Your task to perform on an android device: toggle show notifications on the lock screen Image 0: 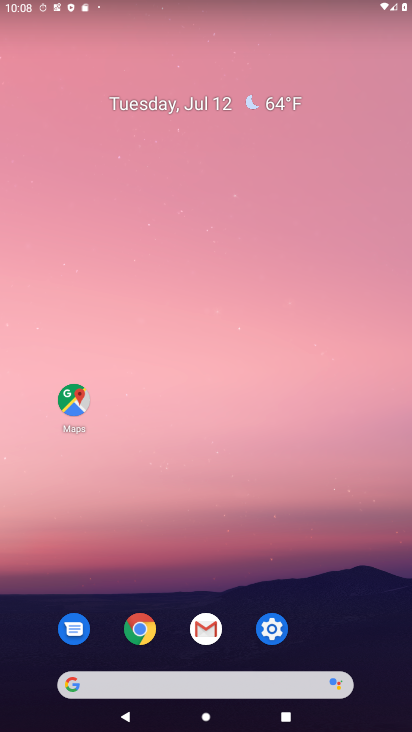
Step 0: click (265, 625)
Your task to perform on an android device: toggle show notifications on the lock screen Image 1: 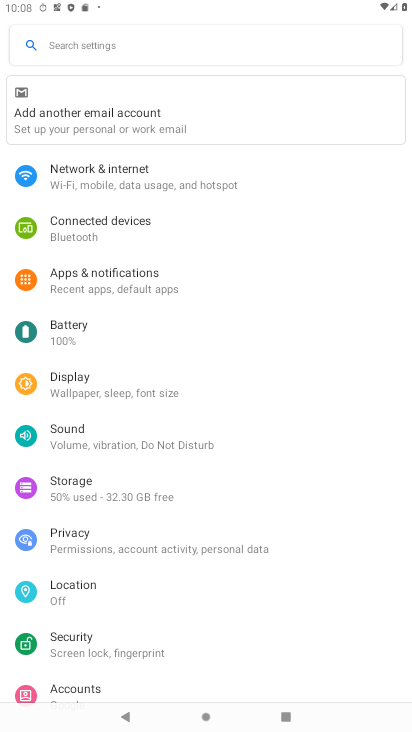
Step 1: click (125, 44)
Your task to perform on an android device: toggle show notifications on the lock screen Image 2: 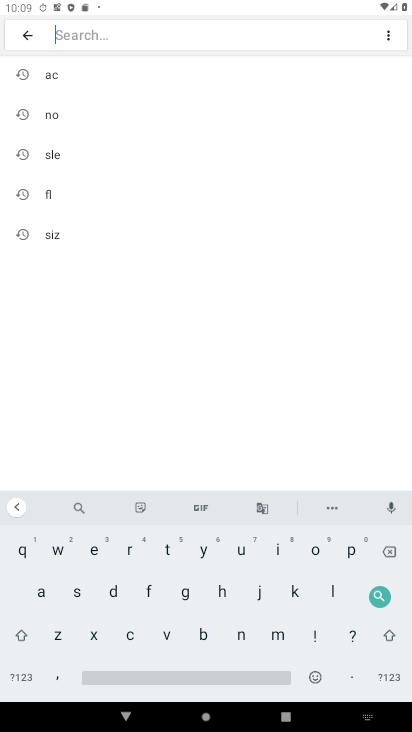
Step 2: click (73, 114)
Your task to perform on an android device: toggle show notifications on the lock screen Image 3: 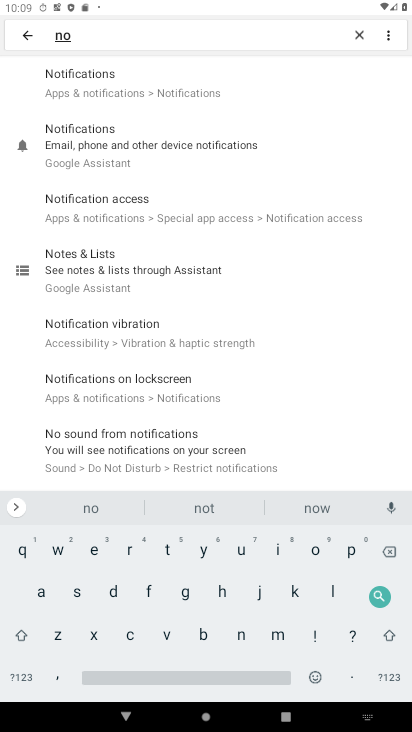
Step 3: click (105, 81)
Your task to perform on an android device: toggle show notifications on the lock screen Image 4: 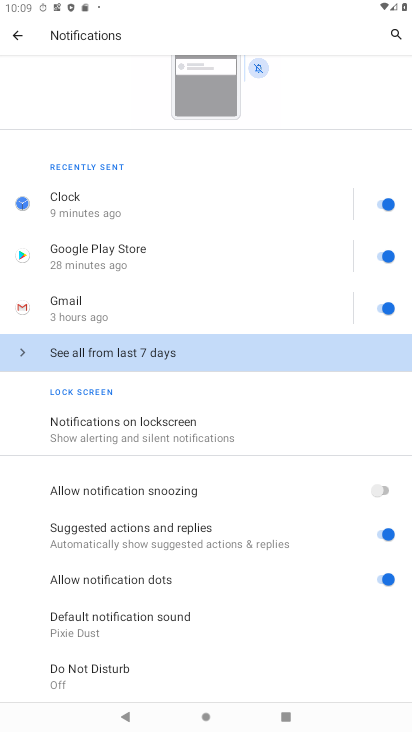
Step 4: click (94, 424)
Your task to perform on an android device: toggle show notifications on the lock screen Image 5: 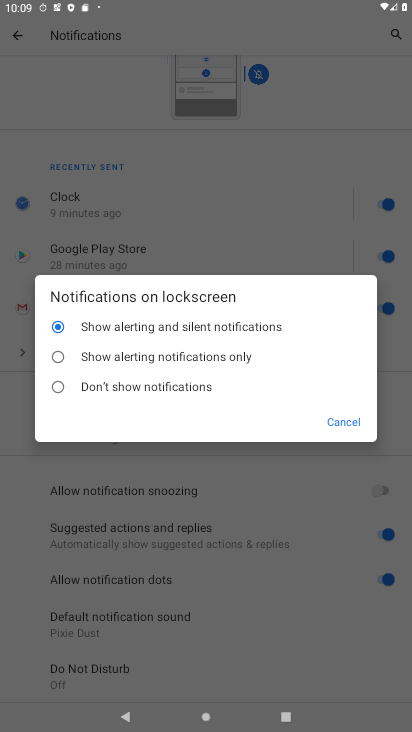
Step 5: task complete